Your task to perform on an android device: set default search engine in the chrome app Image 0: 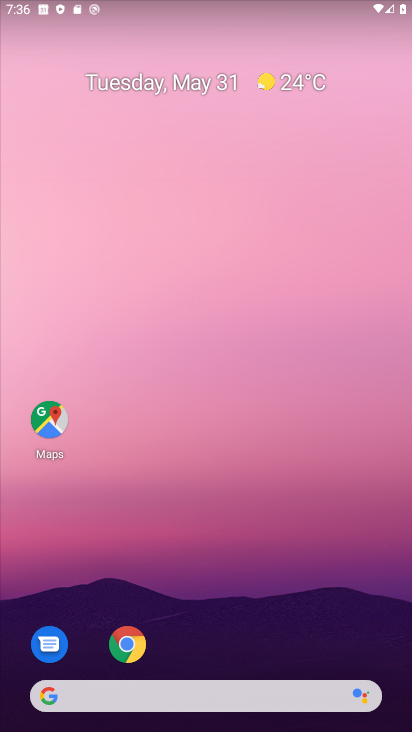
Step 0: press home button
Your task to perform on an android device: set default search engine in the chrome app Image 1: 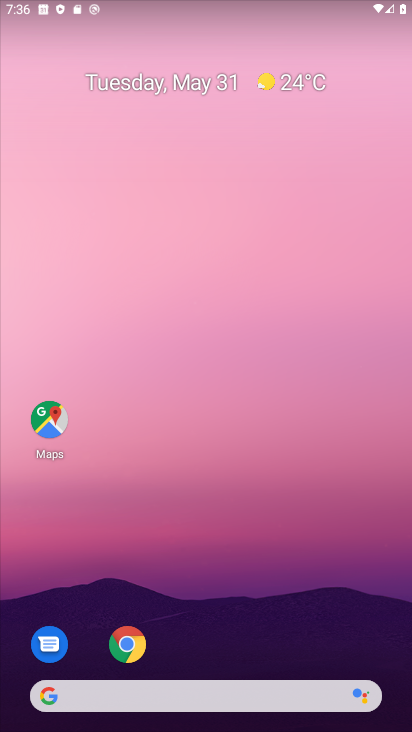
Step 1: drag from (333, 574) to (351, 204)
Your task to perform on an android device: set default search engine in the chrome app Image 2: 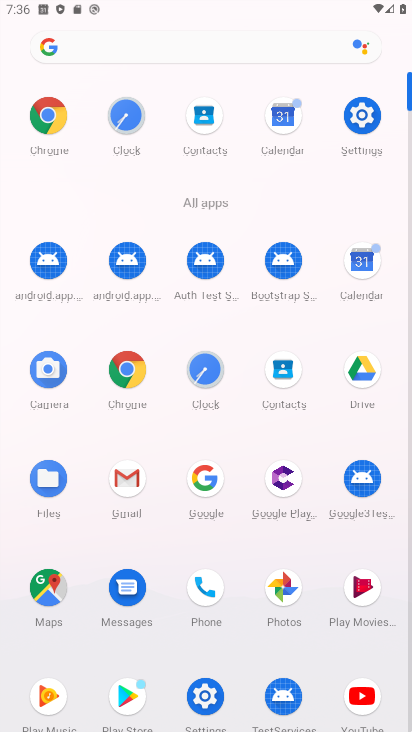
Step 2: click (121, 372)
Your task to perform on an android device: set default search engine in the chrome app Image 3: 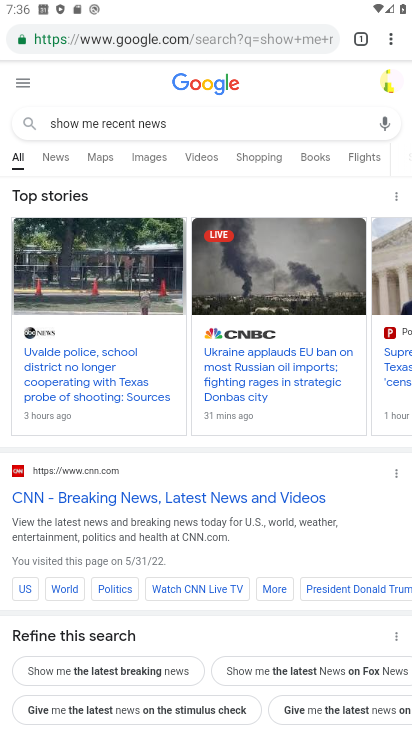
Step 3: drag from (387, 36) to (257, 444)
Your task to perform on an android device: set default search engine in the chrome app Image 4: 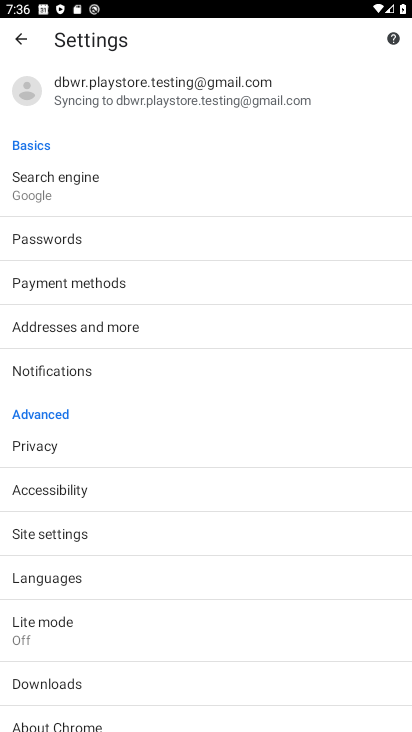
Step 4: click (114, 179)
Your task to perform on an android device: set default search engine in the chrome app Image 5: 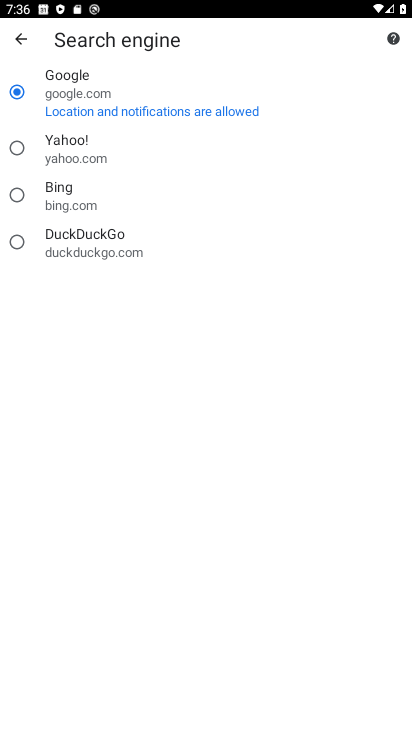
Step 5: click (106, 149)
Your task to perform on an android device: set default search engine in the chrome app Image 6: 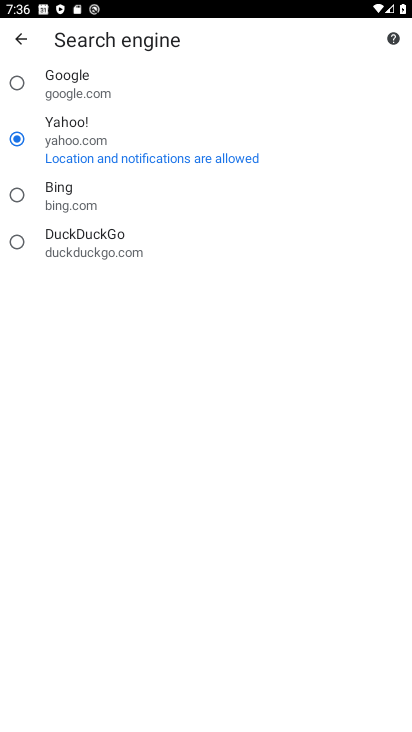
Step 6: task complete